Your task to perform on an android device: turn on location history Image 0: 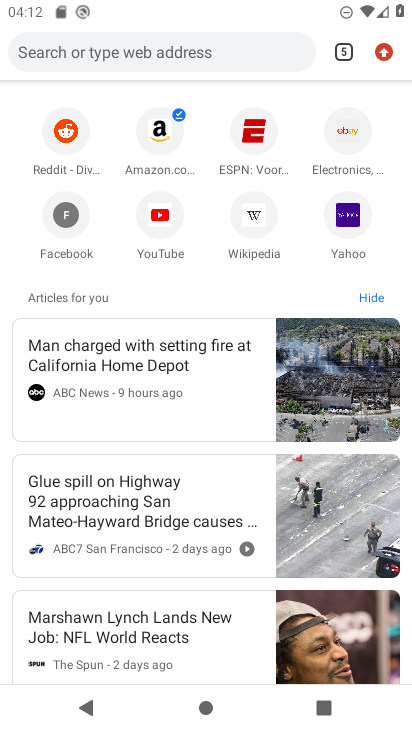
Step 0: drag from (215, 18) to (276, 543)
Your task to perform on an android device: turn on location history Image 1: 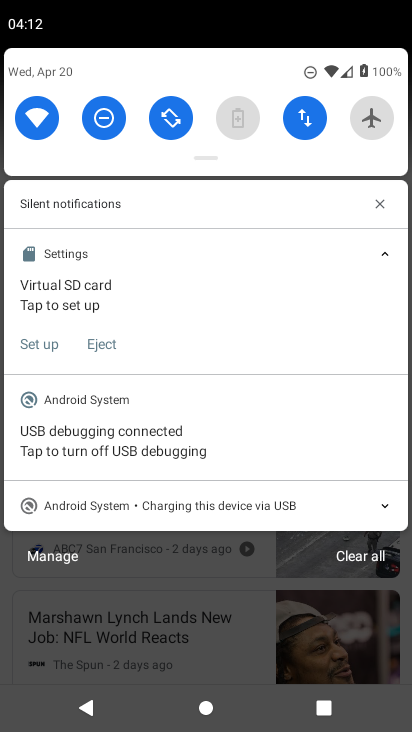
Step 1: drag from (203, 104) to (192, 615)
Your task to perform on an android device: turn on location history Image 2: 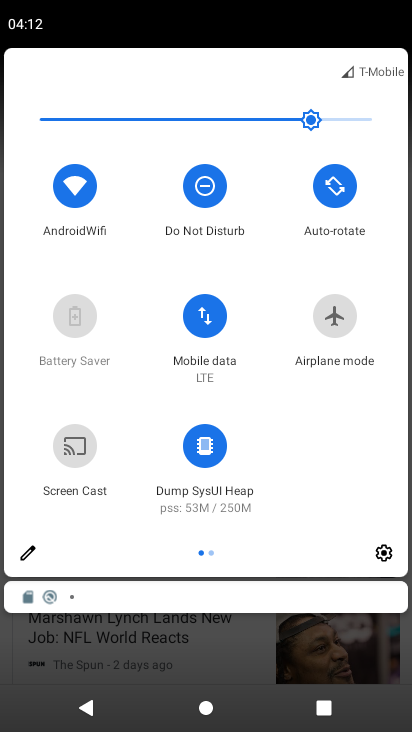
Step 2: click (390, 563)
Your task to perform on an android device: turn on location history Image 3: 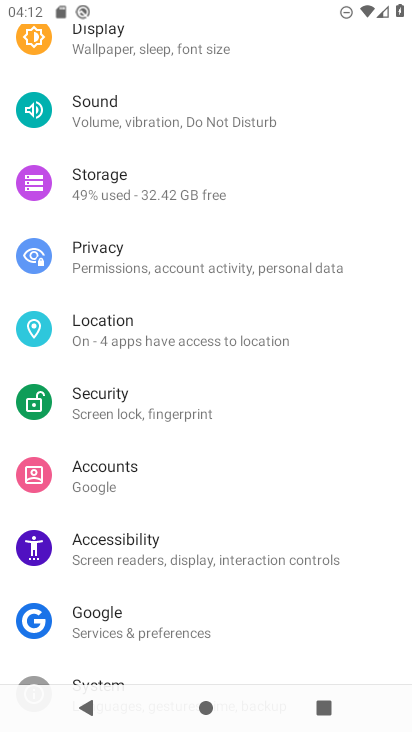
Step 3: click (162, 346)
Your task to perform on an android device: turn on location history Image 4: 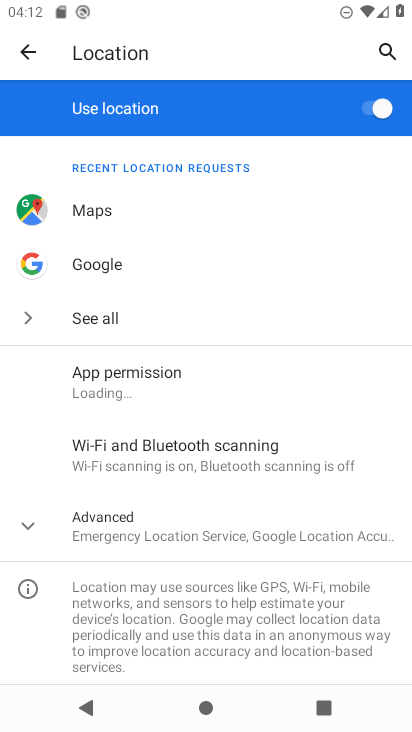
Step 4: click (180, 527)
Your task to perform on an android device: turn on location history Image 5: 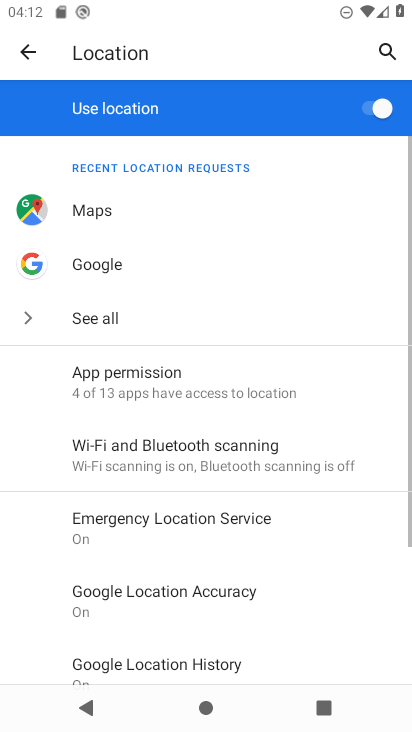
Step 5: drag from (180, 527) to (190, 94)
Your task to perform on an android device: turn on location history Image 6: 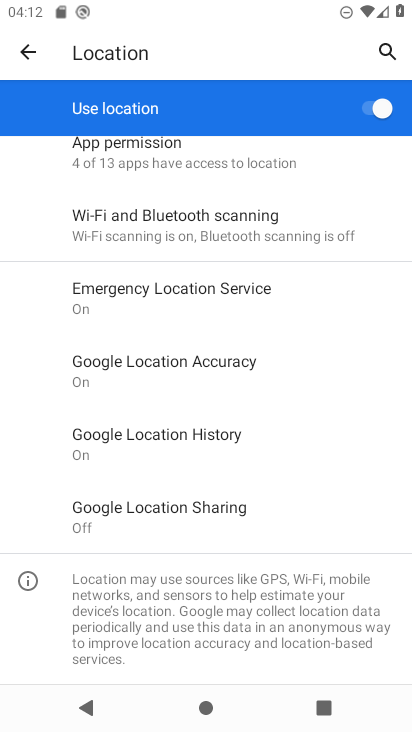
Step 6: click (164, 450)
Your task to perform on an android device: turn on location history Image 7: 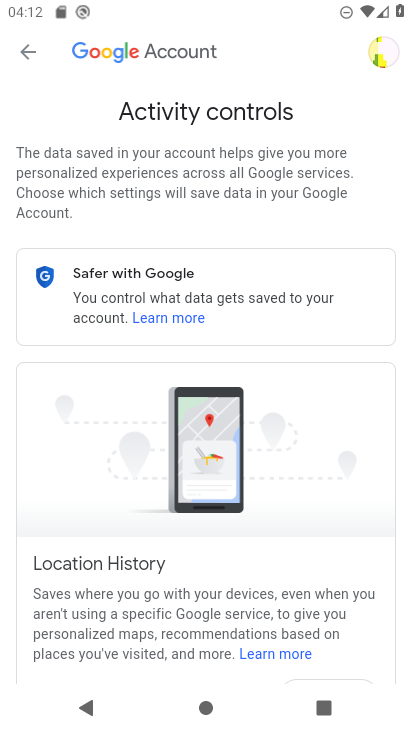
Step 7: task complete